Your task to perform on an android device: turn off wifi Image 0: 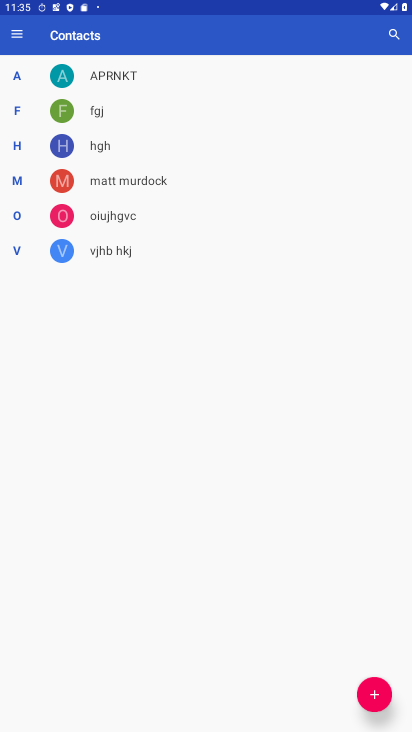
Step 0: press home button
Your task to perform on an android device: turn off wifi Image 1: 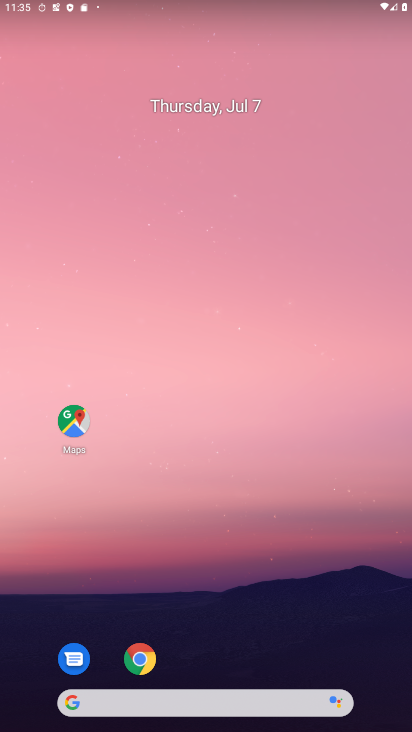
Step 1: drag from (201, 672) to (208, 215)
Your task to perform on an android device: turn off wifi Image 2: 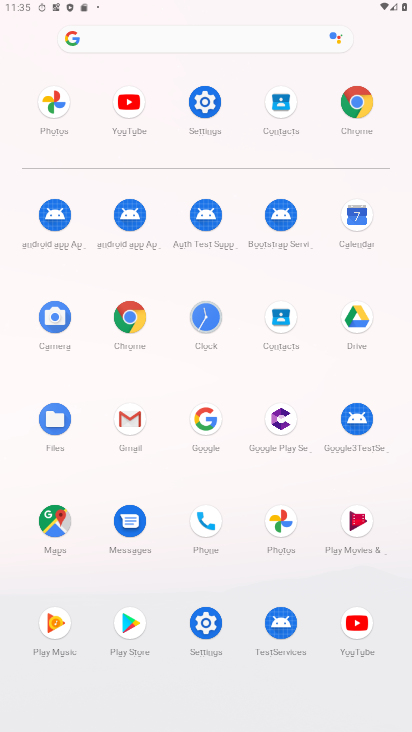
Step 2: drag from (158, 4) to (142, 612)
Your task to perform on an android device: turn off wifi Image 3: 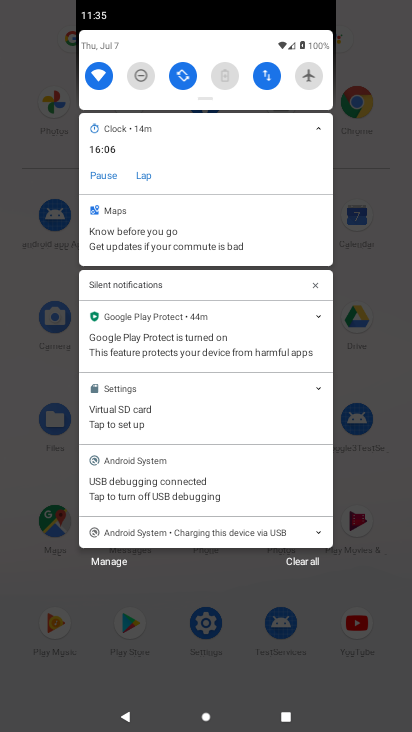
Step 3: click (96, 77)
Your task to perform on an android device: turn off wifi Image 4: 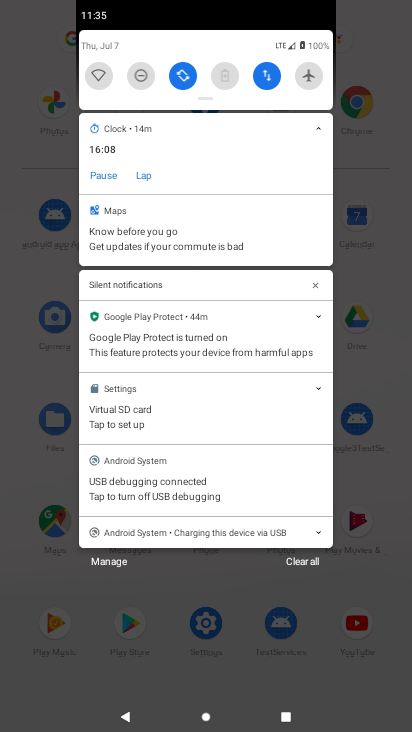
Step 4: task complete